Your task to perform on an android device: move an email to a new category in the gmail app Image 0: 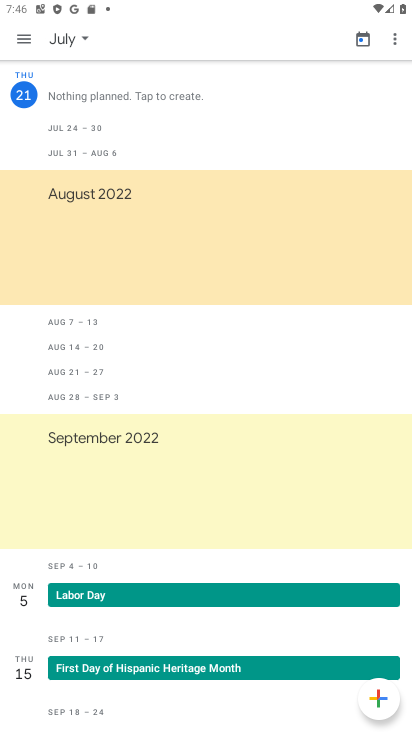
Step 0: press home button
Your task to perform on an android device: move an email to a new category in the gmail app Image 1: 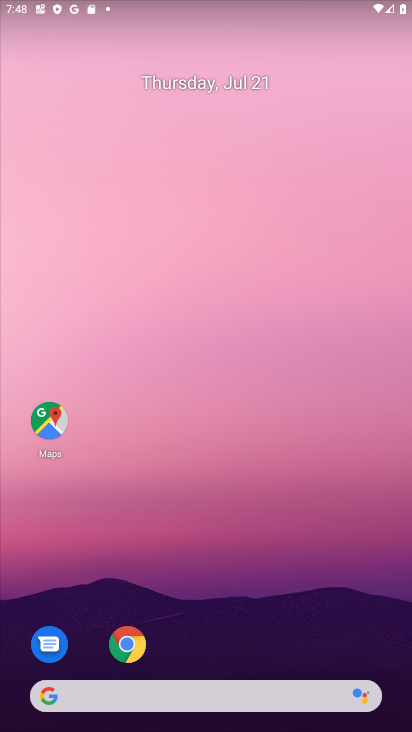
Step 1: drag from (277, 523) to (301, 128)
Your task to perform on an android device: move an email to a new category in the gmail app Image 2: 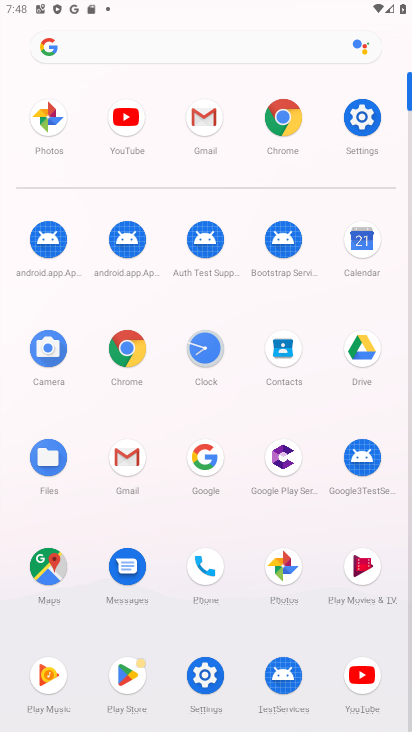
Step 2: click (130, 462)
Your task to perform on an android device: move an email to a new category in the gmail app Image 3: 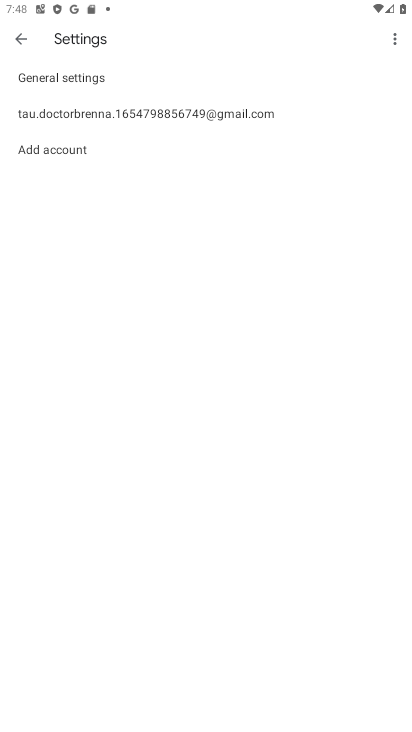
Step 3: click (20, 37)
Your task to perform on an android device: move an email to a new category in the gmail app Image 4: 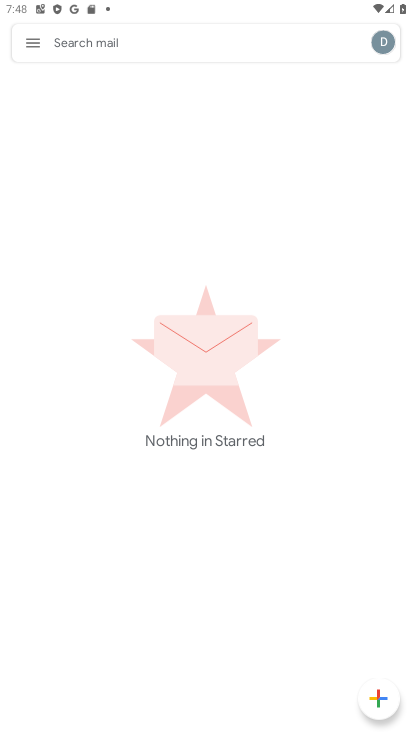
Step 4: click (34, 34)
Your task to perform on an android device: move an email to a new category in the gmail app Image 5: 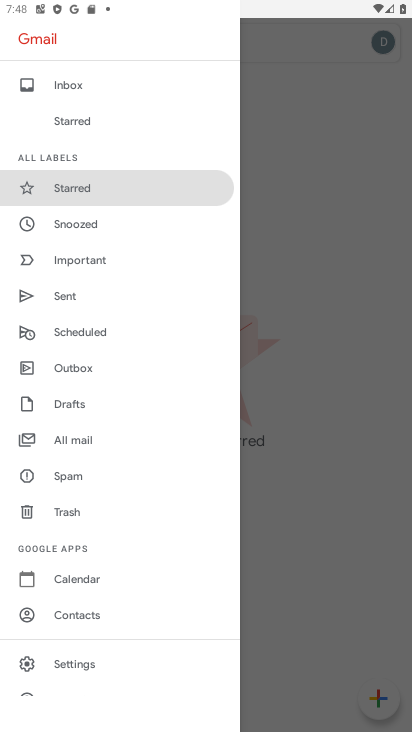
Step 5: click (79, 80)
Your task to perform on an android device: move an email to a new category in the gmail app Image 6: 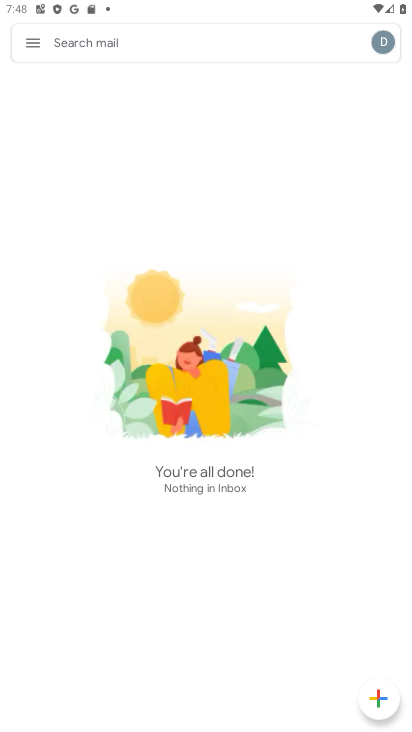
Step 6: task complete